Your task to perform on an android device: toggle notification dots Image 0: 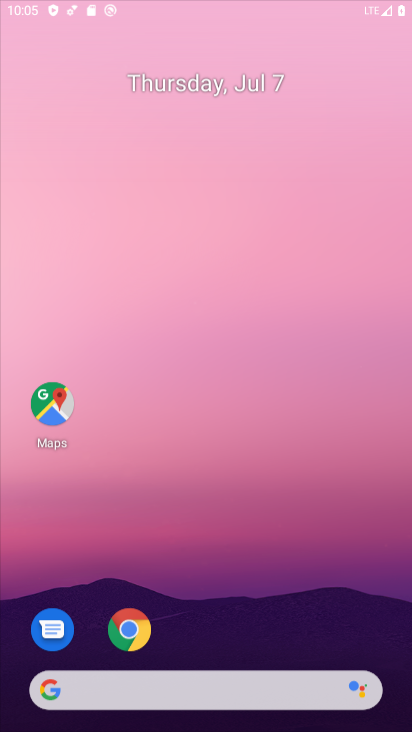
Step 0: click (275, 109)
Your task to perform on an android device: toggle notification dots Image 1: 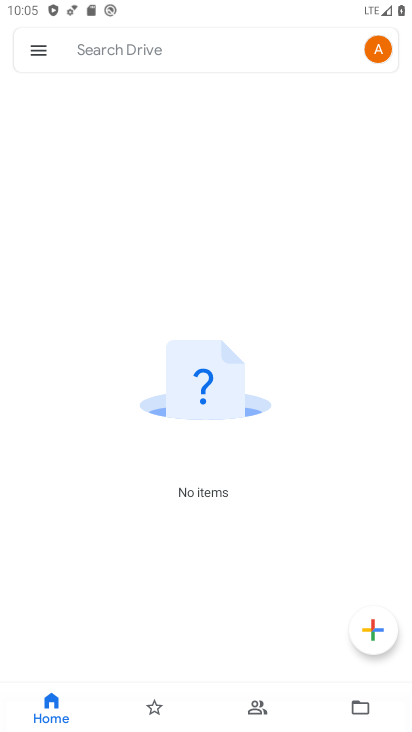
Step 1: press home button
Your task to perform on an android device: toggle notification dots Image 2: 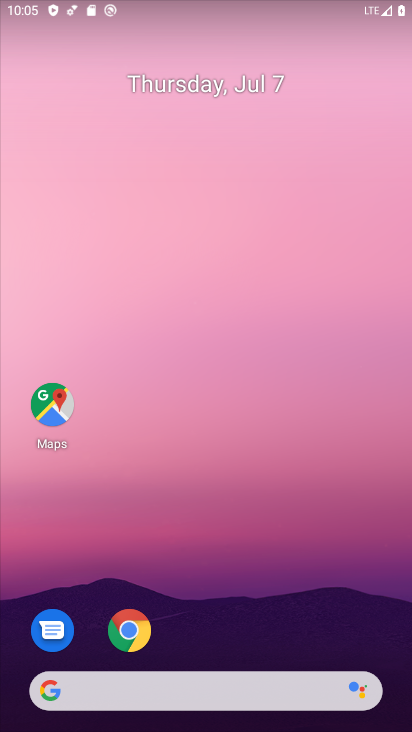
Step 2: drag from (213, 638) to (221, 100)
Your task to perform on an android device: toggle notification dots Image 3: 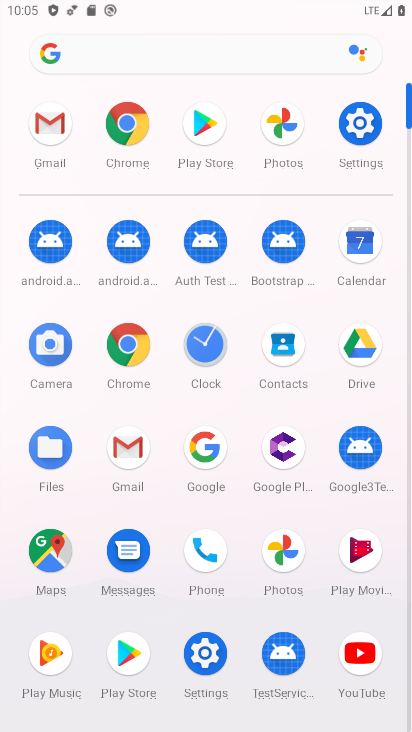
Step 3: click (353, 123)
Your task to perform on an android device: toggle notification dots Image 4: 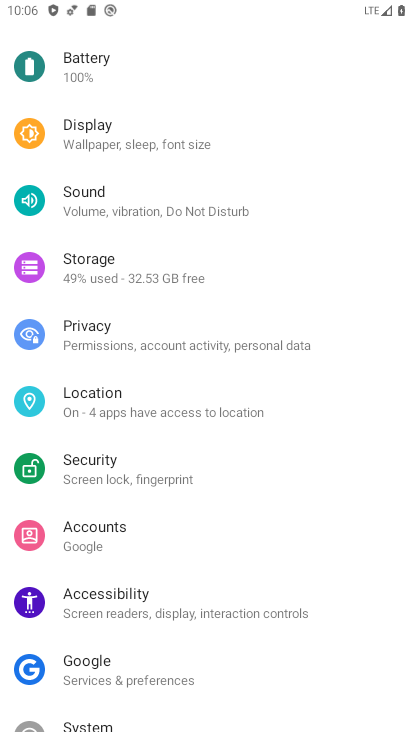
Step 4: drag from (137, 106) to (136, 603)
Your task to perform on an android device: toggle notification dots Image 5: 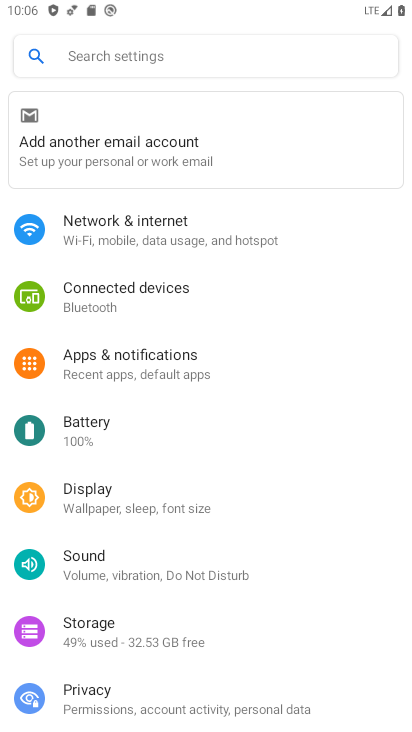
Step 5: click (223, 361)
Your task to perform on an android device: toggle notification dots Image 6: 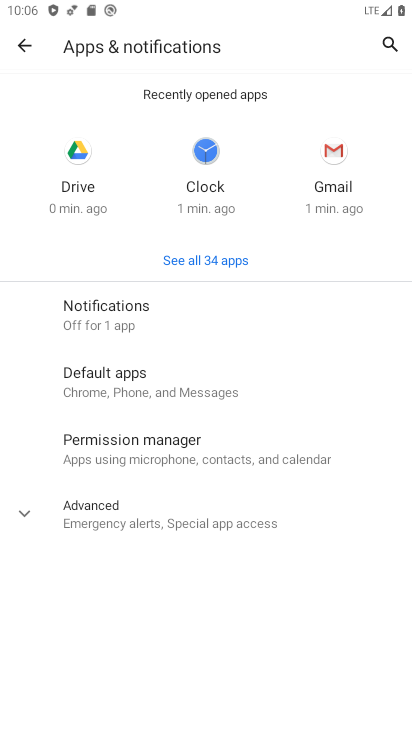
Step 6: click (173, 313)
Your task to perform on an android device: toggle notification dots Image 7: 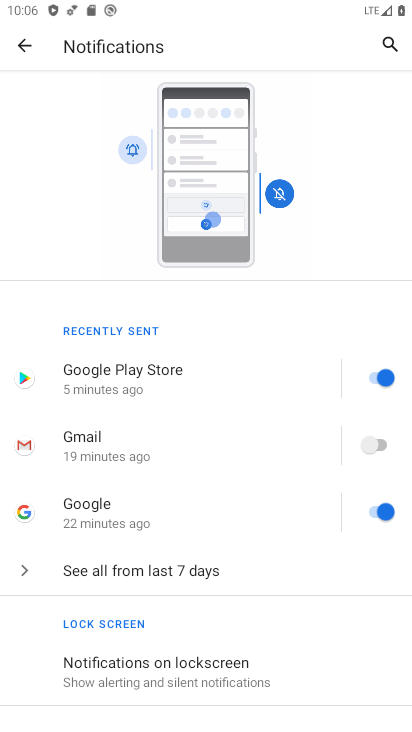
Step 7: drag from (289, 684) to (290, 211)
Your task to perform on an android device: toggle notification dots Image 8: 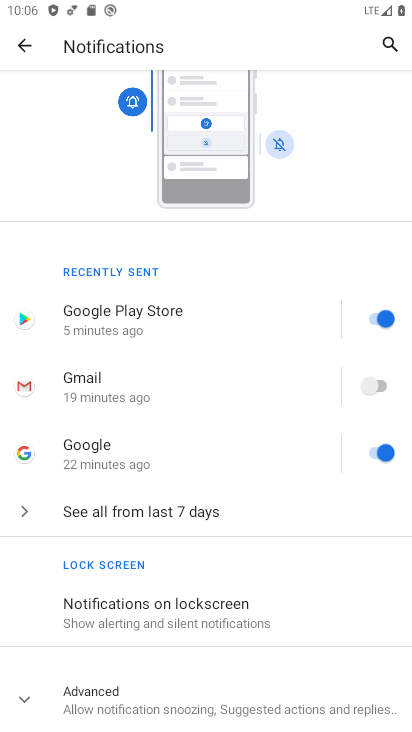
Step 8: click (23, 691)
Your task to perform on an android device: toggle notification dots Image 9: 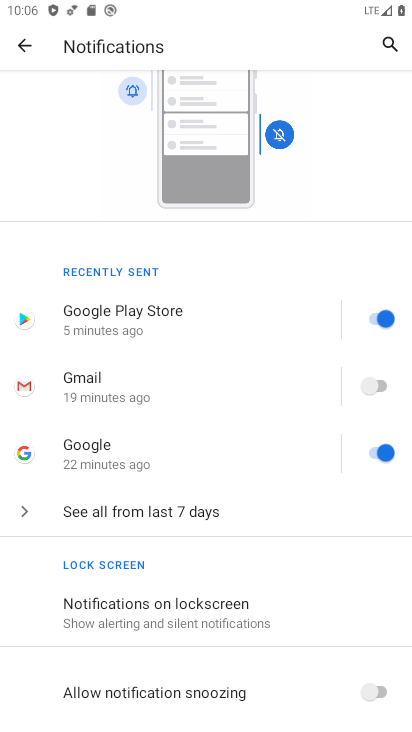
Step 9: drag from (210, 661) to (220, 109)
Your task to perform on an android device: toggle notification dots Image 10: 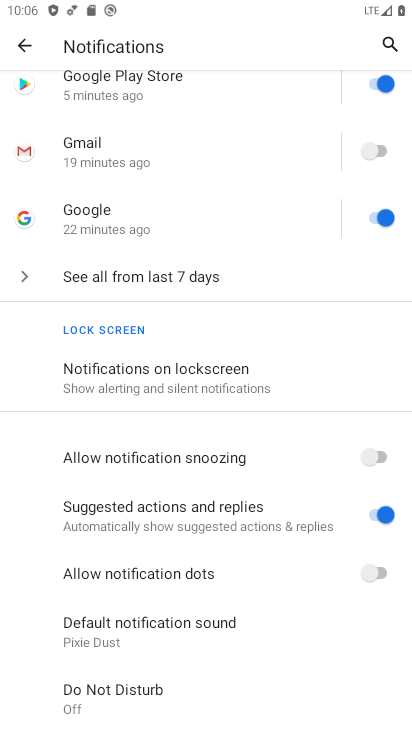
Step 10: click (371, 568)
Your task to perform on an android device: toggle notification dots Image 11: 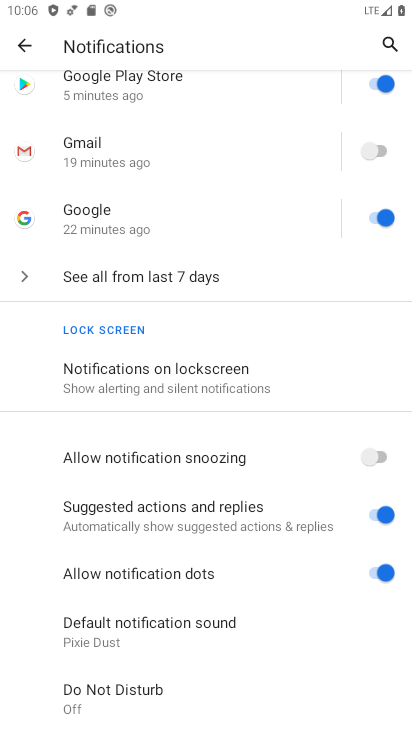
Step 11: task complete